Your task to perform on an android device: turn on priority inbox in the gmail app Image 0: 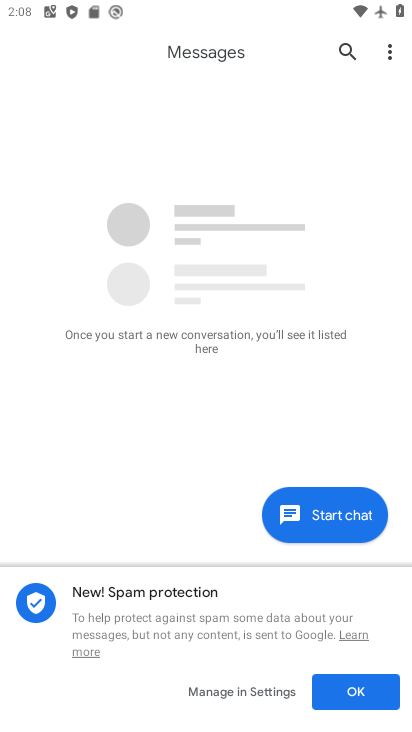
Step 0: press home button
Your task to perform on an android device: turn on priority inbox in the gmail app Image 1: 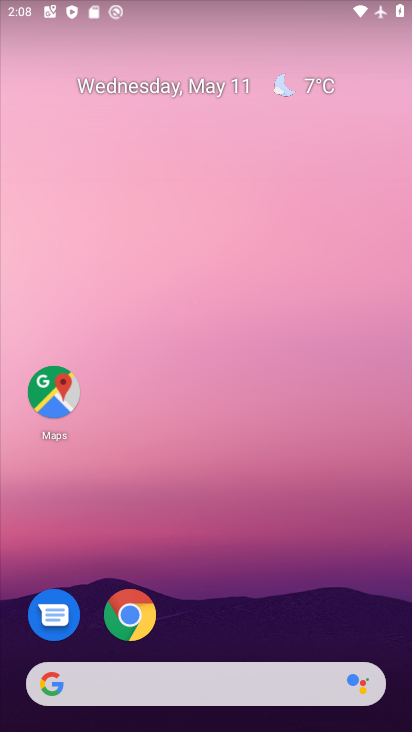
Step 1: drag from (241, 652) to (231, 77)
Your task to perform on an android device: turn on priority inbox in the gmail app Image 2: 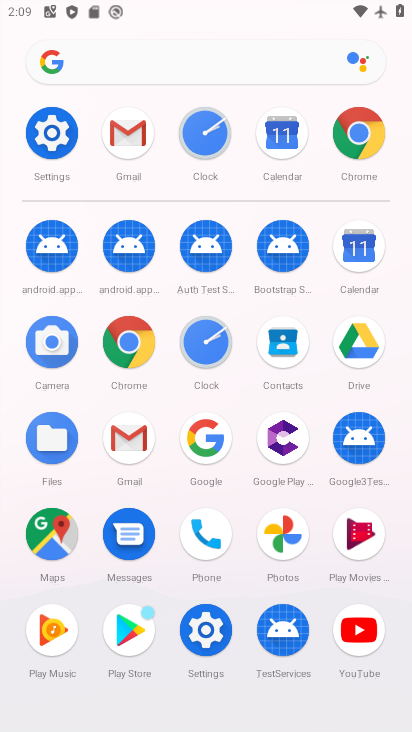
Step 2: click (133, 127)
Your task to perform on an android device: turn on priority inbox in the gmail app Image 3: 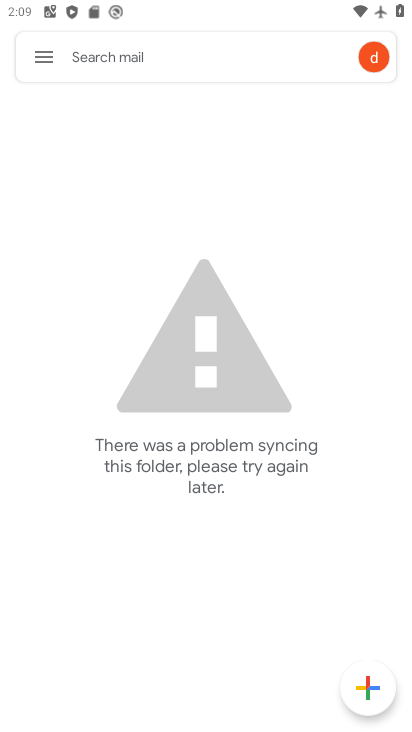
Step 3: click (43, 51)
Your task to perform on an android device: turn on priority inbox in the gmail app Image 4: 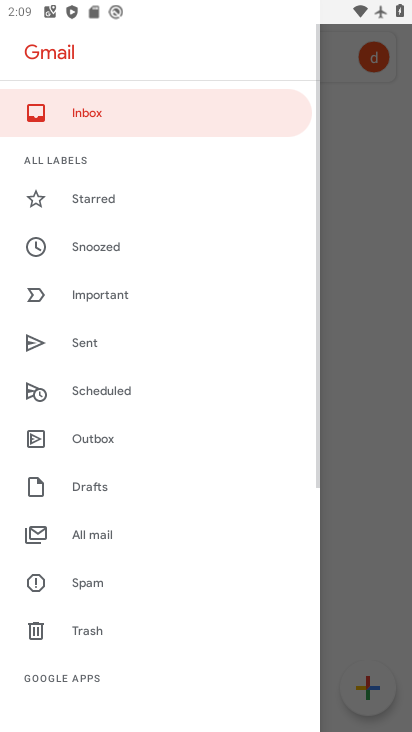
Step 4: drag from (124, 613) to (207, 292)
Your task to perform on an android device: turn on priority inbox in the gmail app Image 5: 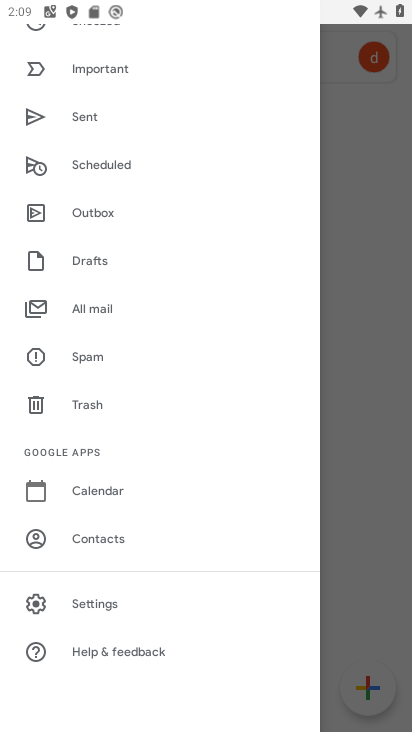
Step 5: click (96, 603)
Your task to perform on an android device: turn on priority inbox in the gmail app Image 6: 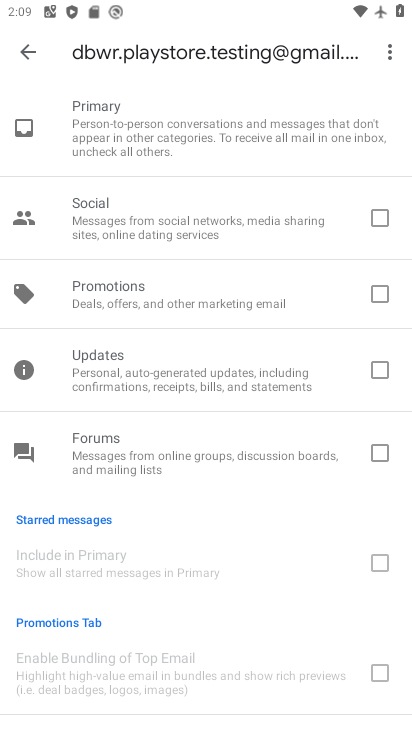
Step 6: click (29, 49)
Your task to perform on an android device: turn on priority inbox in the gmail app Image 7: 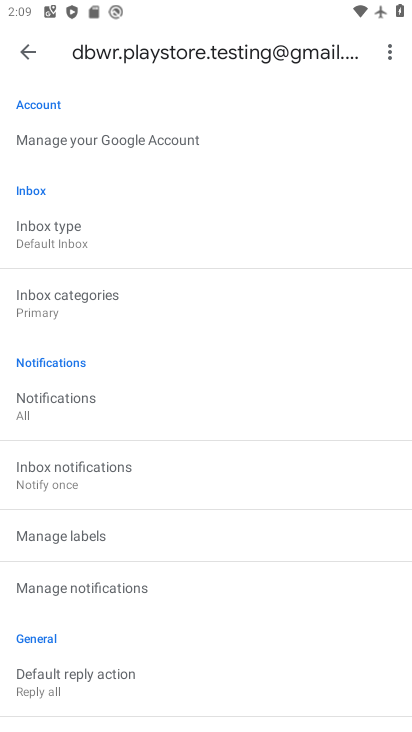
Step 7: click (76, 230)
Your task to perform on an android device: turn on priority inbox in the gmail app Image 8: 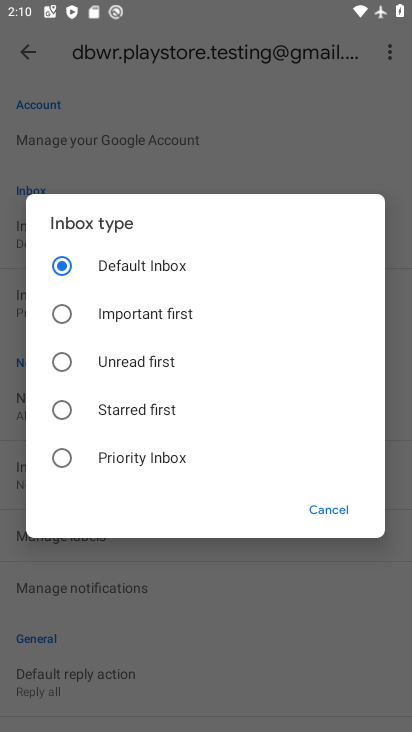
Step 8: task complete